Your task to perform on an android device: Clear all items from cart on target. Image 0: 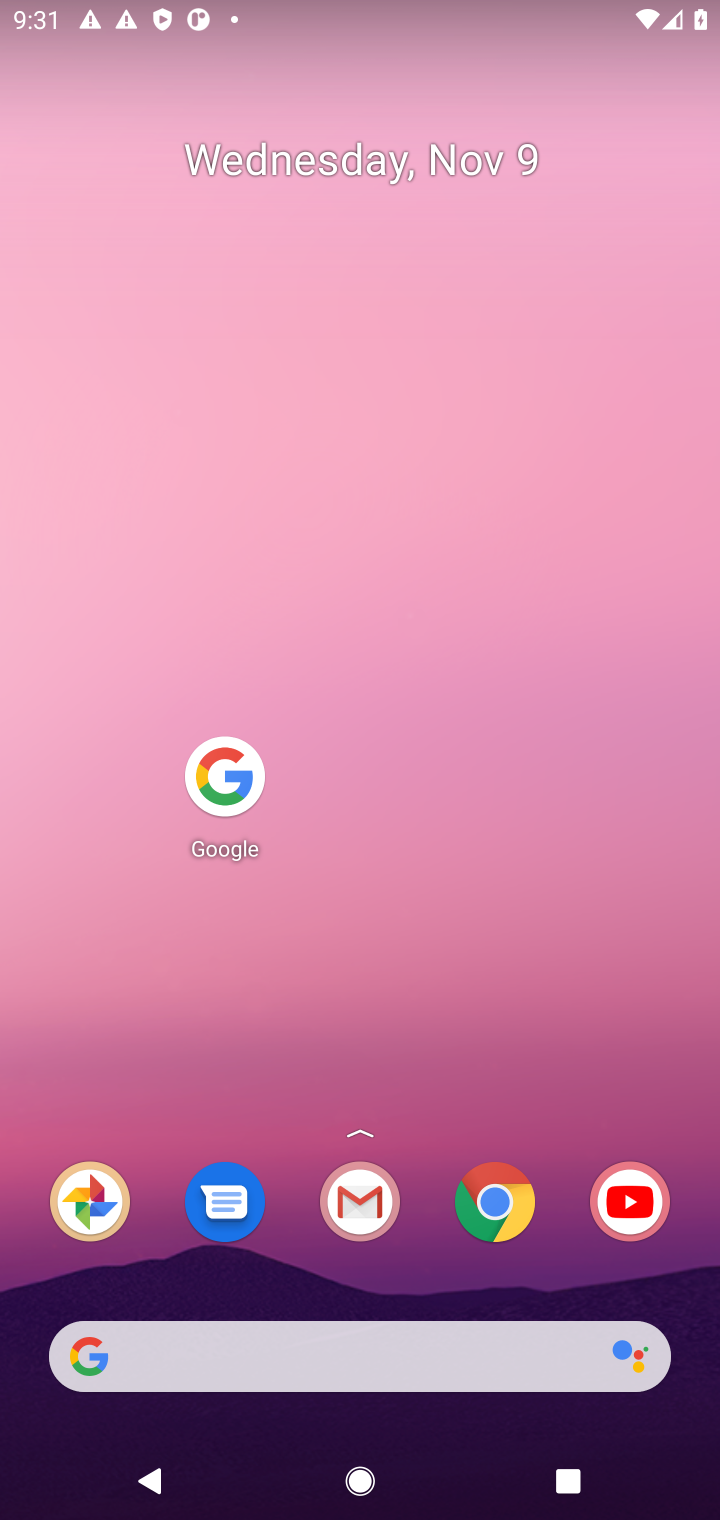
Step 0: press home button
Your task to perform on an android device: Clear all items from cart on target. Image 1: 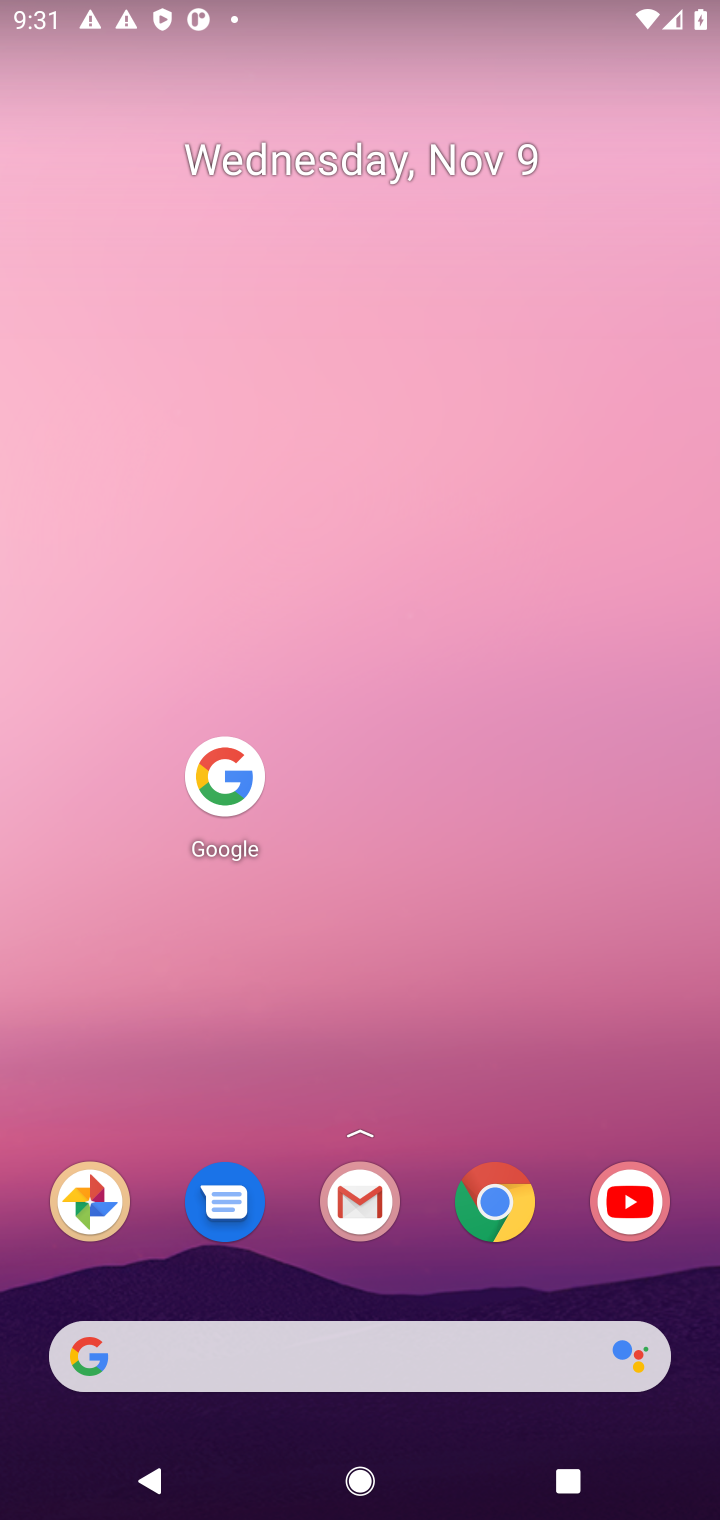
Step 1: click (238, 775)
Your task to perform on an android device: Clear all items from cart on target. Image 2: 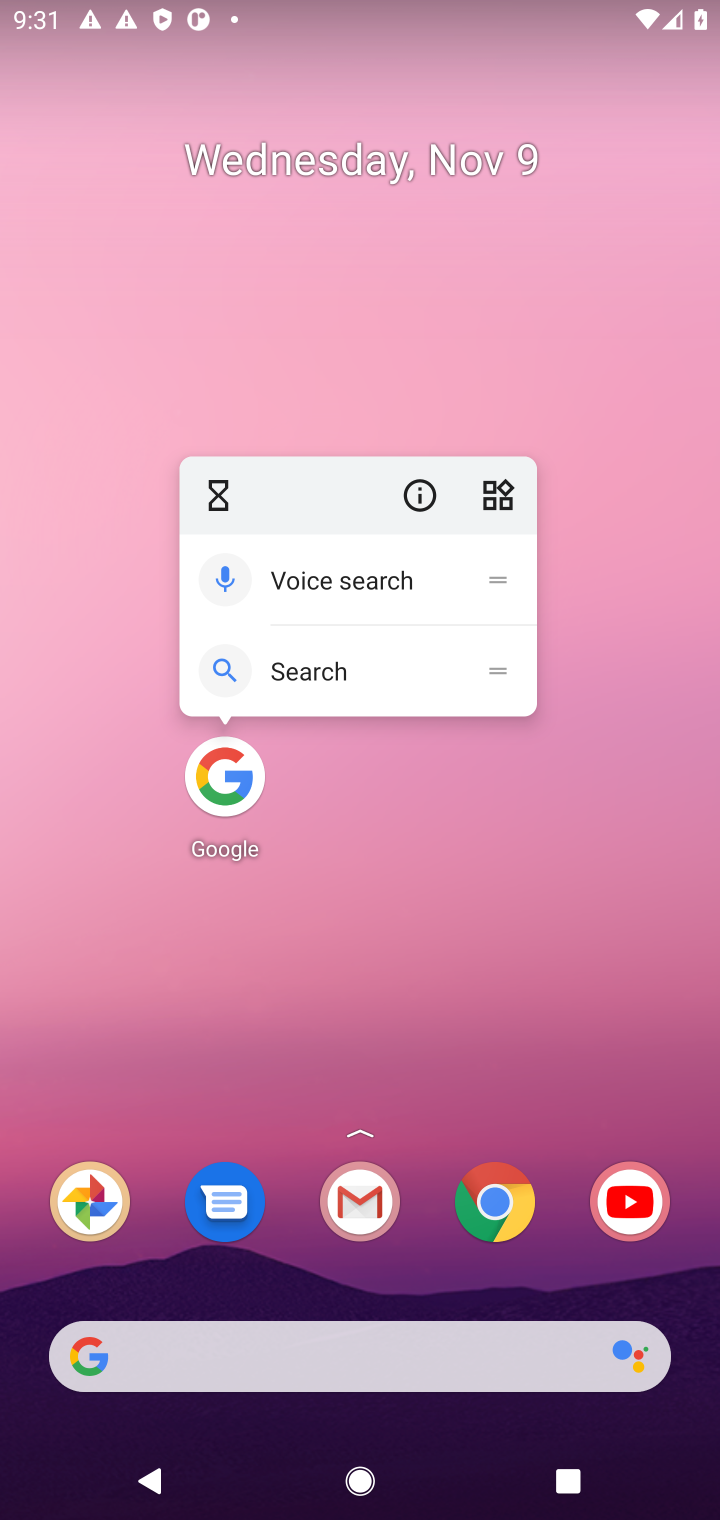
Step 2: click (224, 781)
Your task to perform on an android device: Clear all items from cart on target. Image 3: 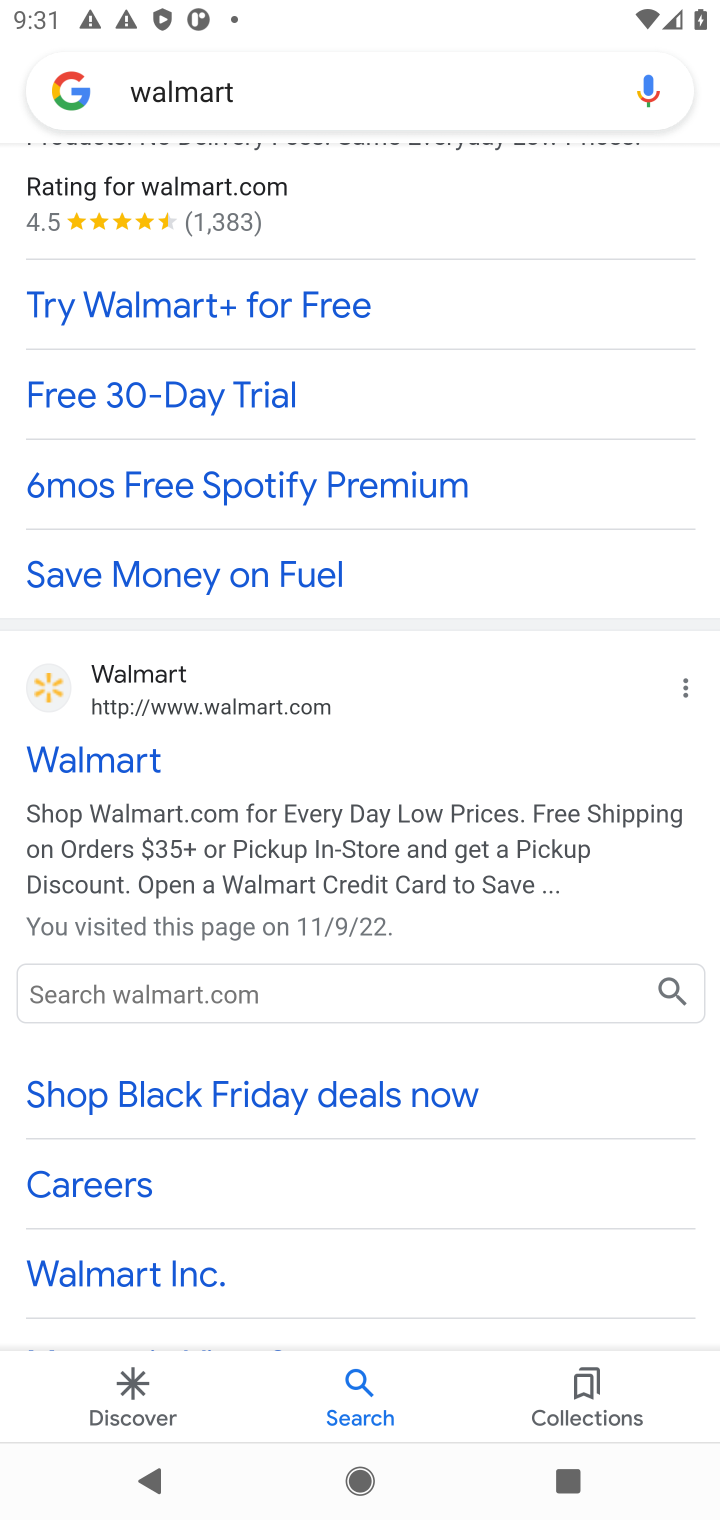
Step 3: click (303, 90)
Your task to perform on an android device: Clear all items from cart on target. Image 4: 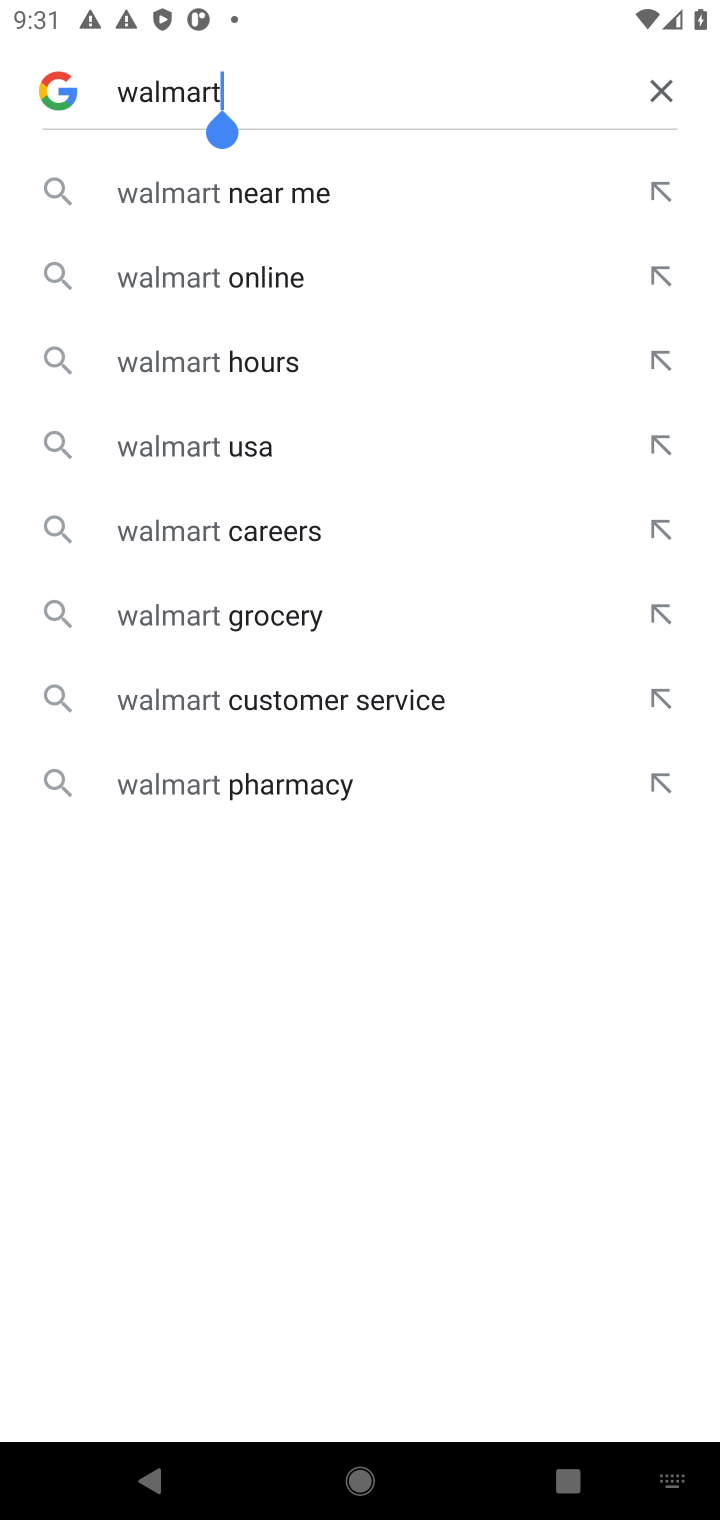
Step 4: click (651, 78)
Your task to perform on an android device: Clear all items from cart on target. Image 5: 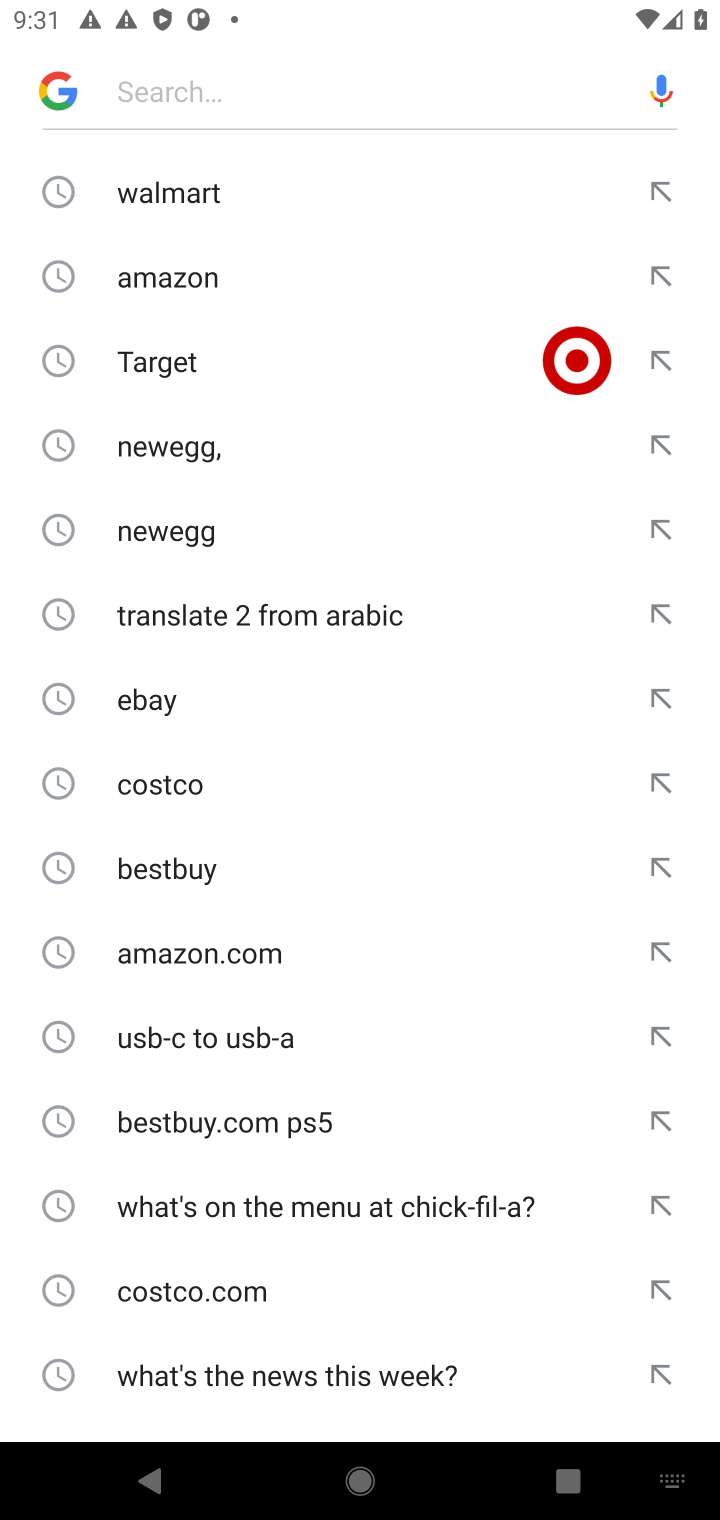
Step 5: click (149, 353)
Your task to perform on an android device: Clear all items from cart on target. Image 6: 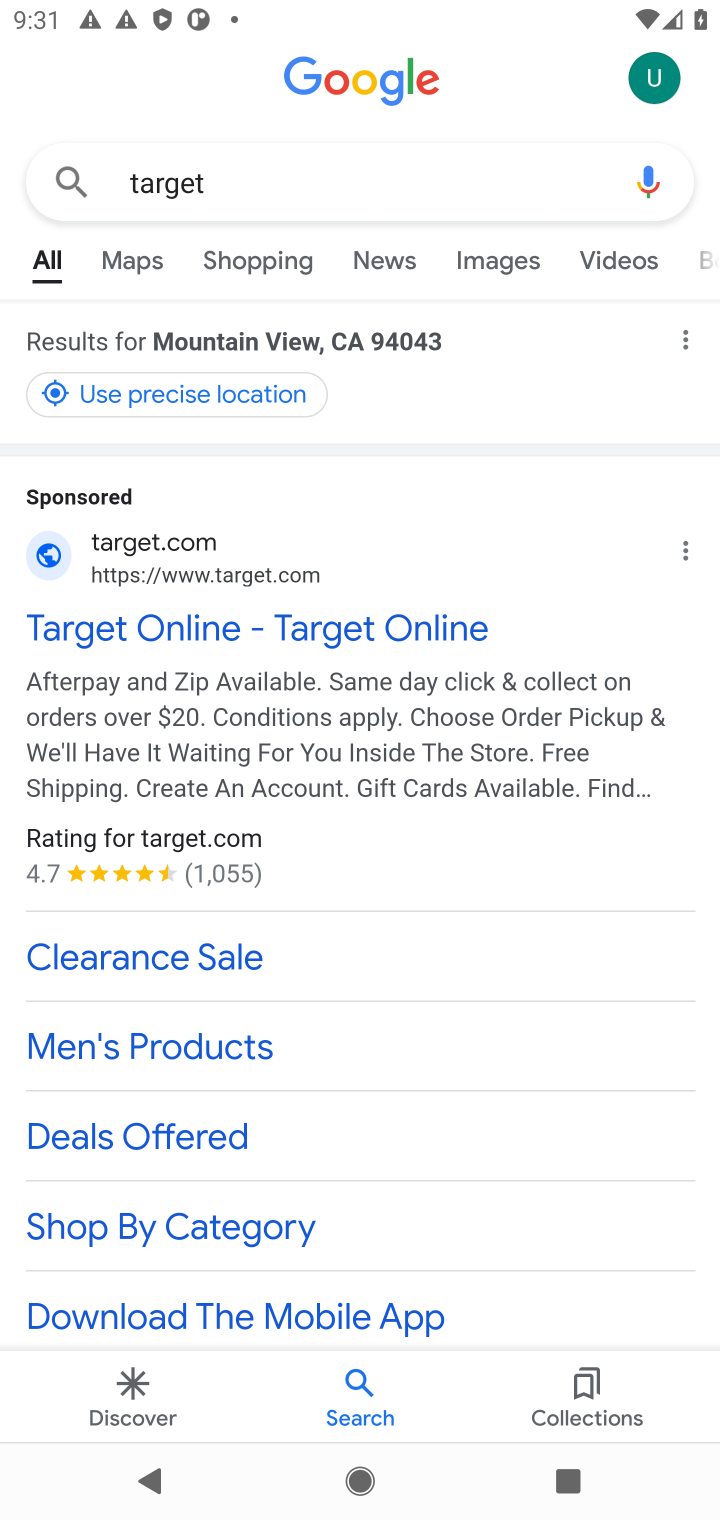
Step 6: click (188, 630)
Your task to perform on an android device: Clear all items from cart on target. Image 7: 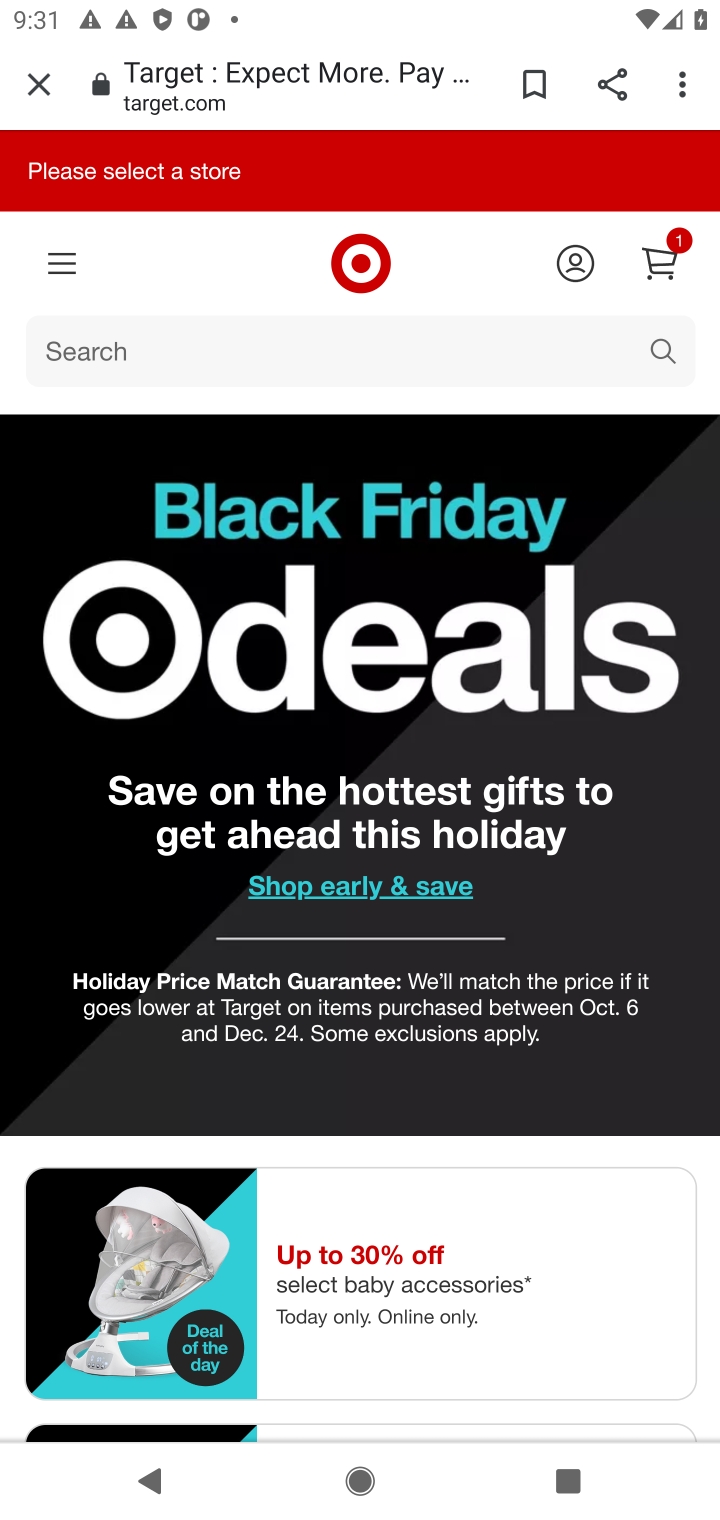
Step 7: click (672, 248)
Your task to perform on an android device: Clear all items from cart on target. Image 8: 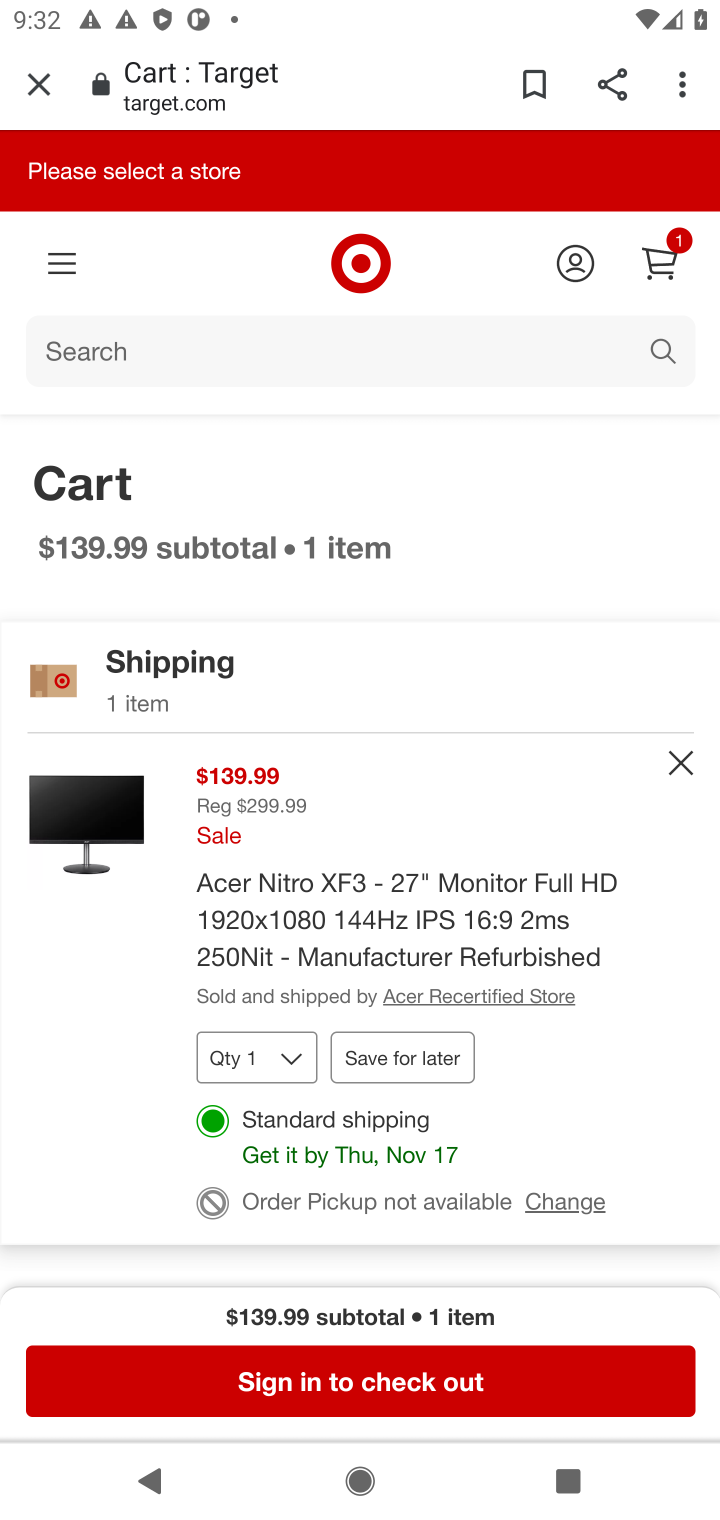
Step 8: drag from (146, 1061) to (420, 484)
Your task to perform on an android device: Clear all items from cart on target. Image 9: 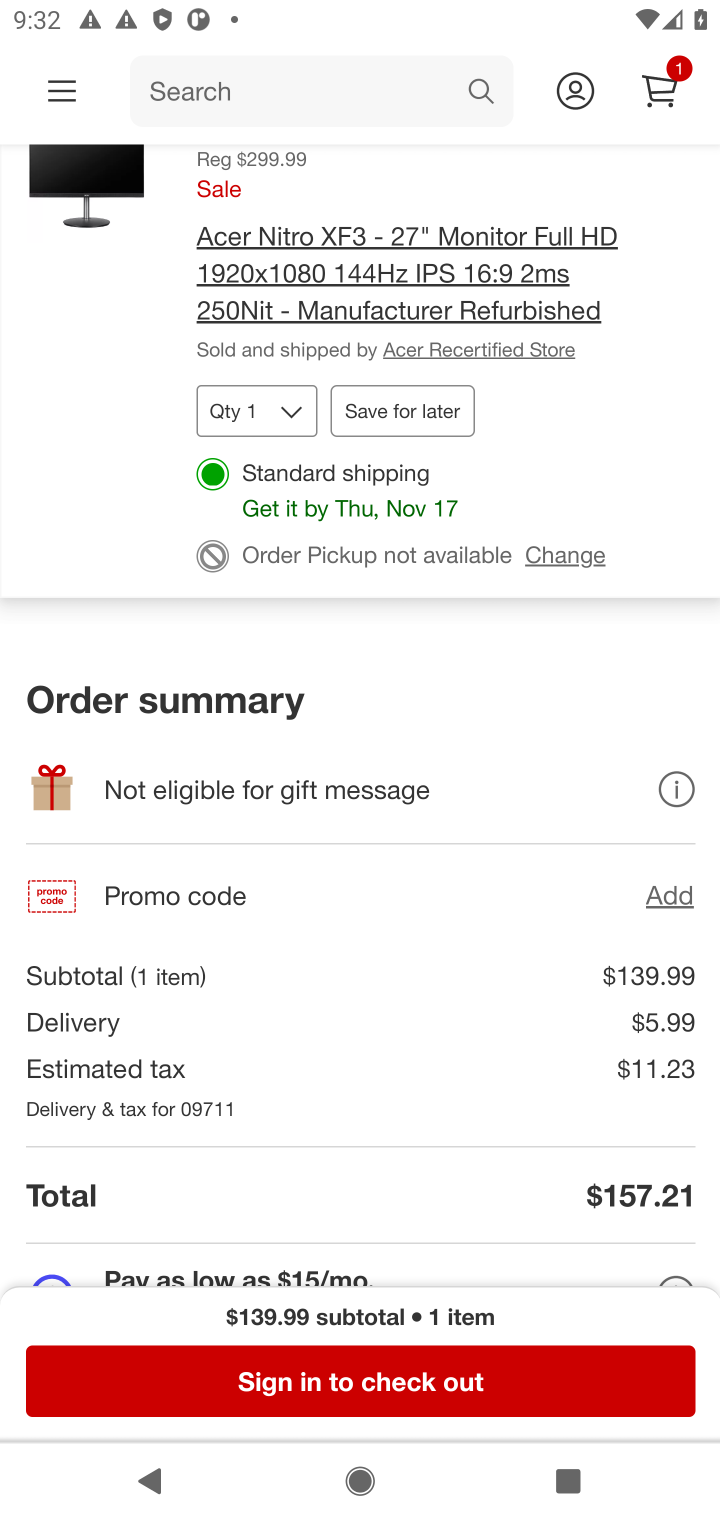
Step 9: drag from (670, 231) to (566, 938)
Your task to perform on an android device: Clear all items from cart on target. Image 10: 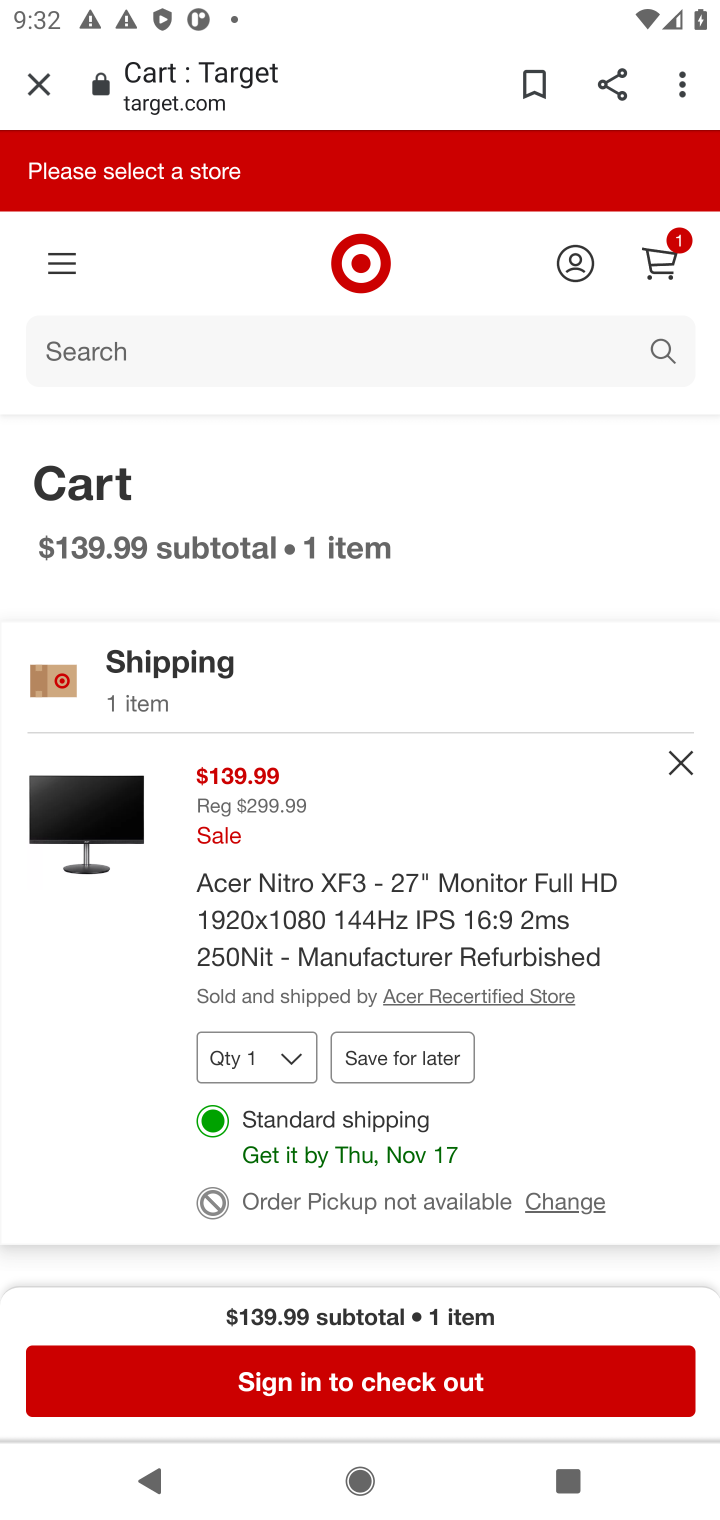
Step 10: click (684, 753)
Your task to perform on an android device: Clear all items from cart on target. Image 11: 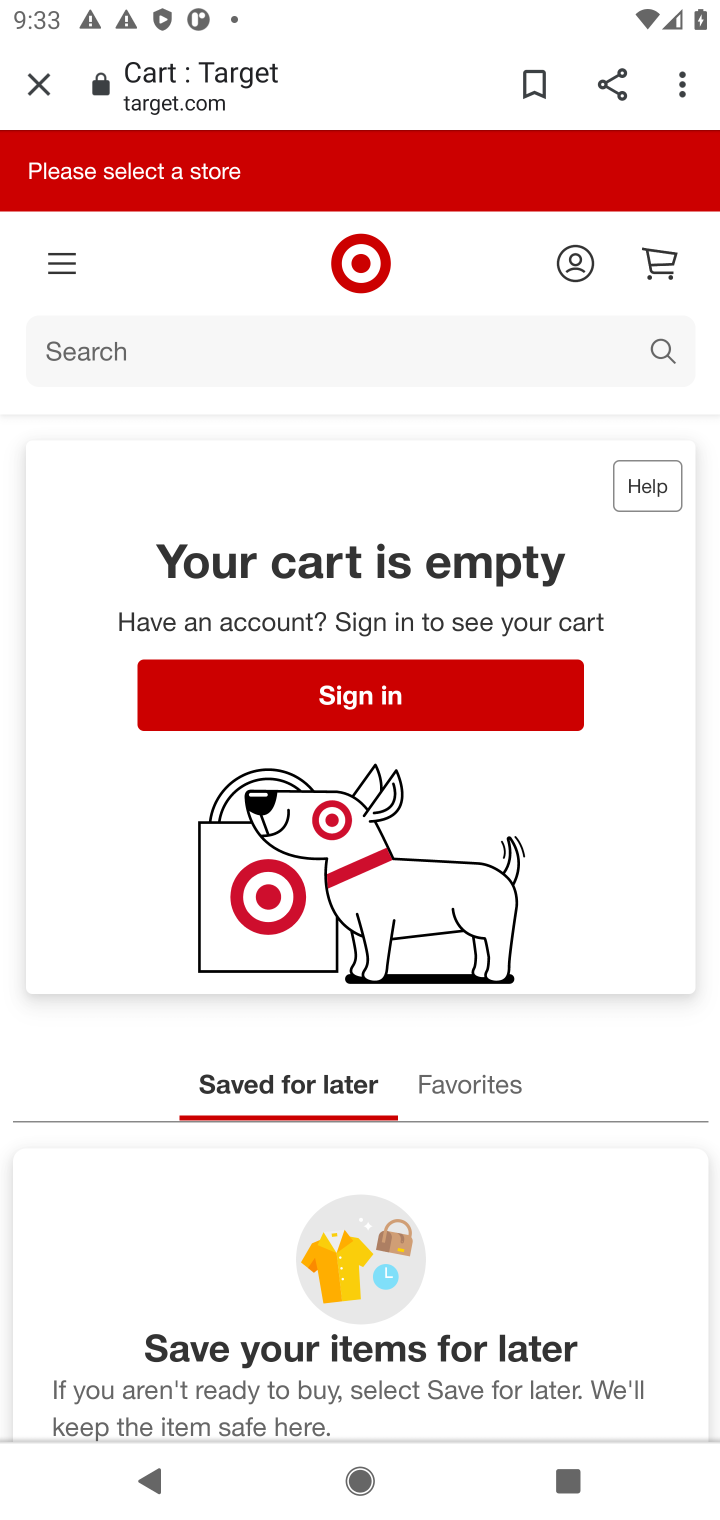
Step 11: task complete